Your task to perform on an android device: search for starred emails in the gmail app Image 0: 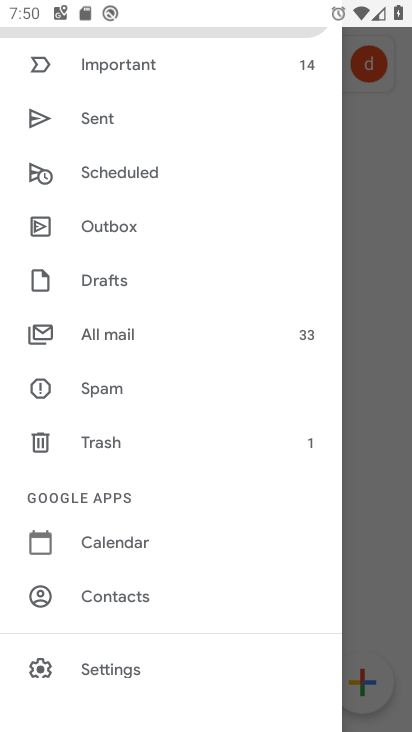
Step 0: drag from (102, 172) to (102, 460)
Your task to perform on an android device: search for starred emails in the gmail app Image 1: 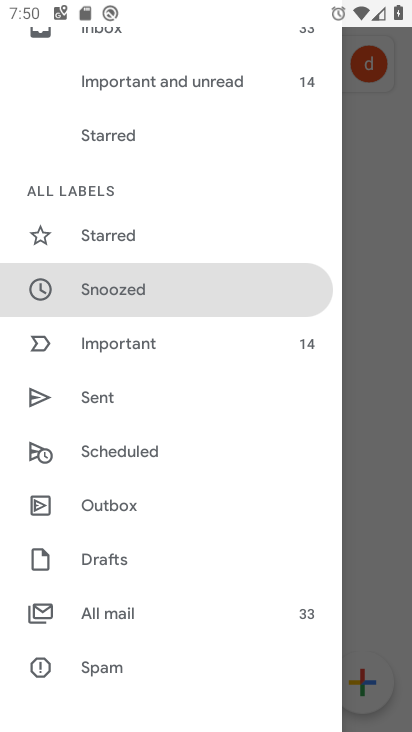
Step 1: click (129, 239)
Your task to perform on an android device: search for starred emails in the gmail app Image 2: 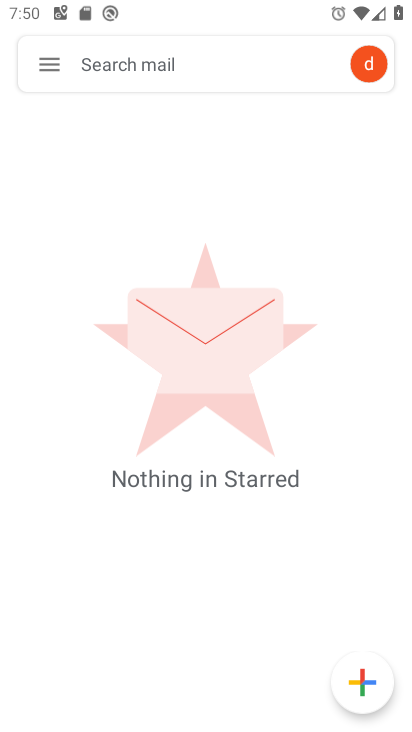
Step 2: task complete